Your task to perform on an android device: What's the price of the 2x4x8 boards at Home Depot? Image 0: 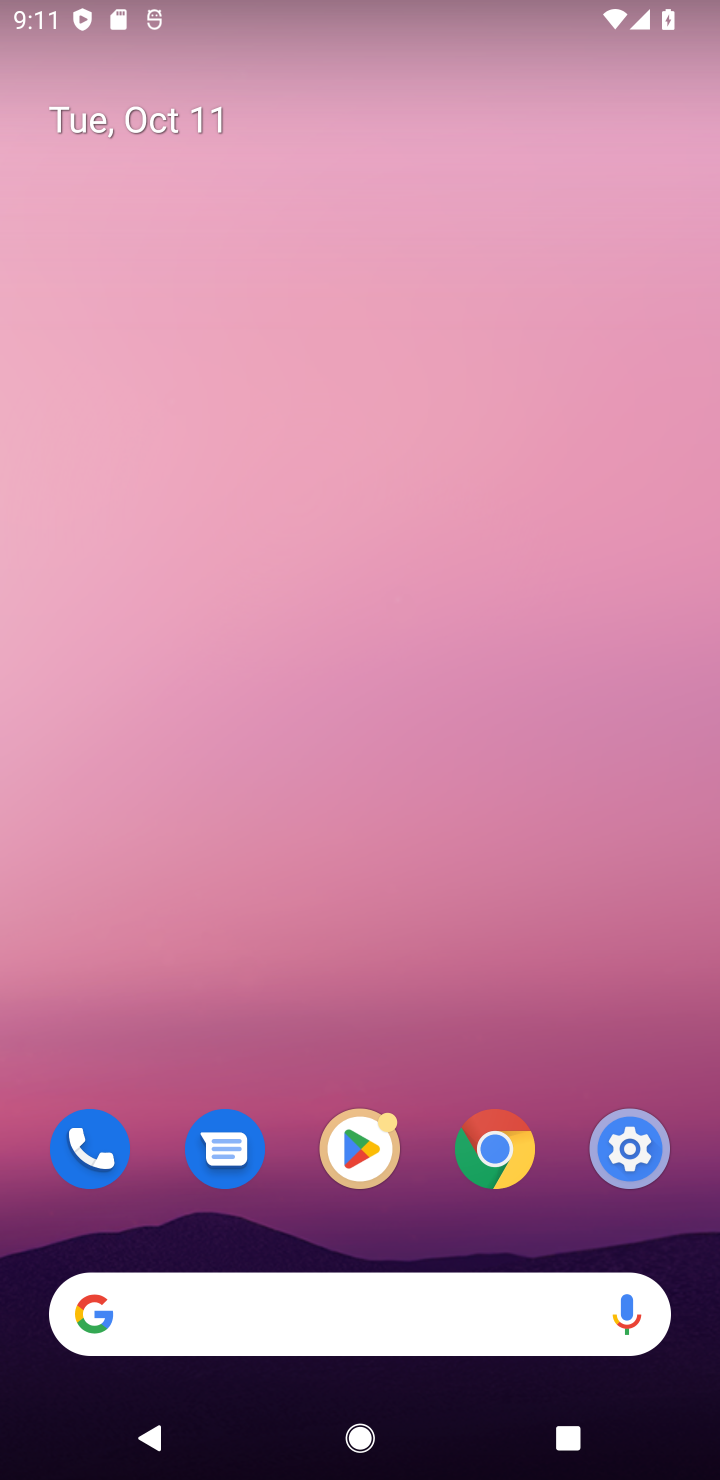
Step 0: drag from (379, 987) to (353, 218)
Your task to perform on an android device: What's the price of the 2x4x8 boards at Home Depot? Image 1: 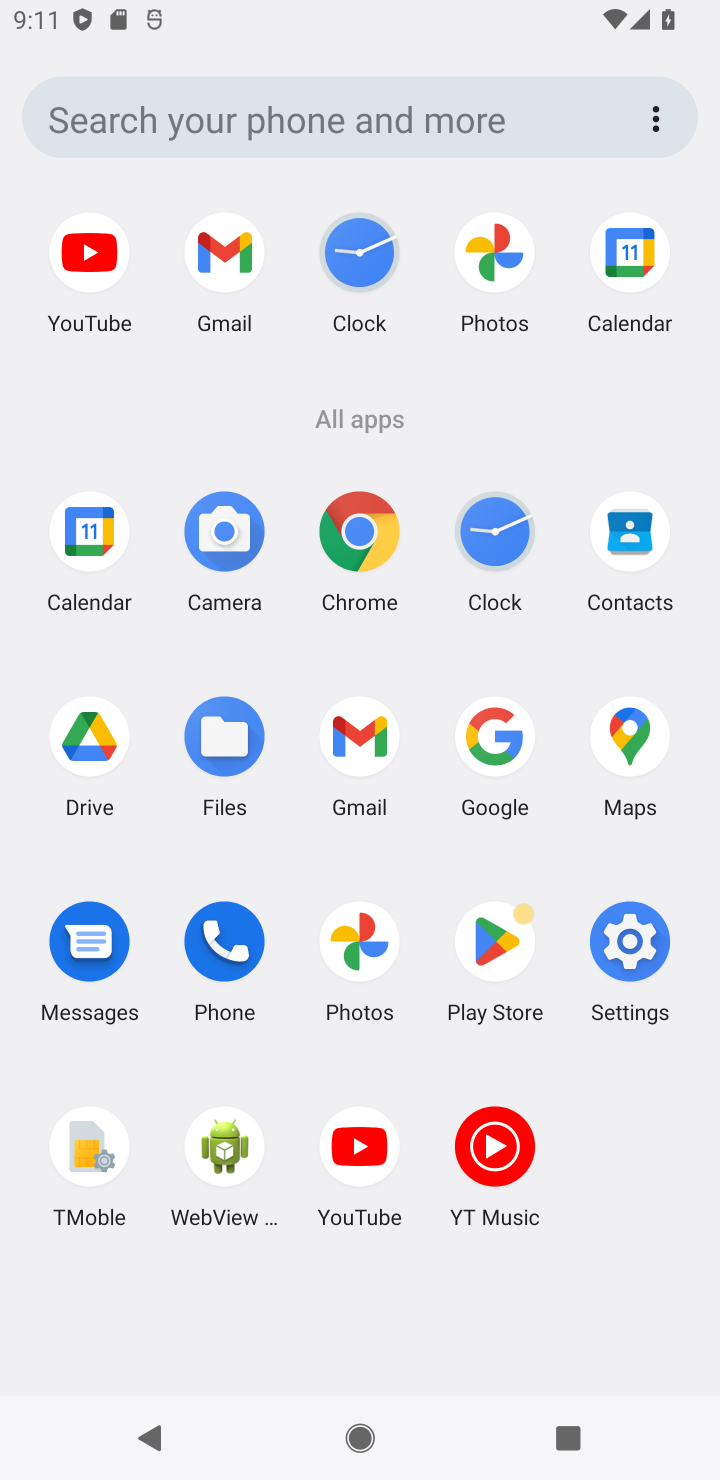
Step 1: click (513, 744)
Your task to perform on an android device: What's the price of the 2x4x8 boards at Home Depot? Image 2: 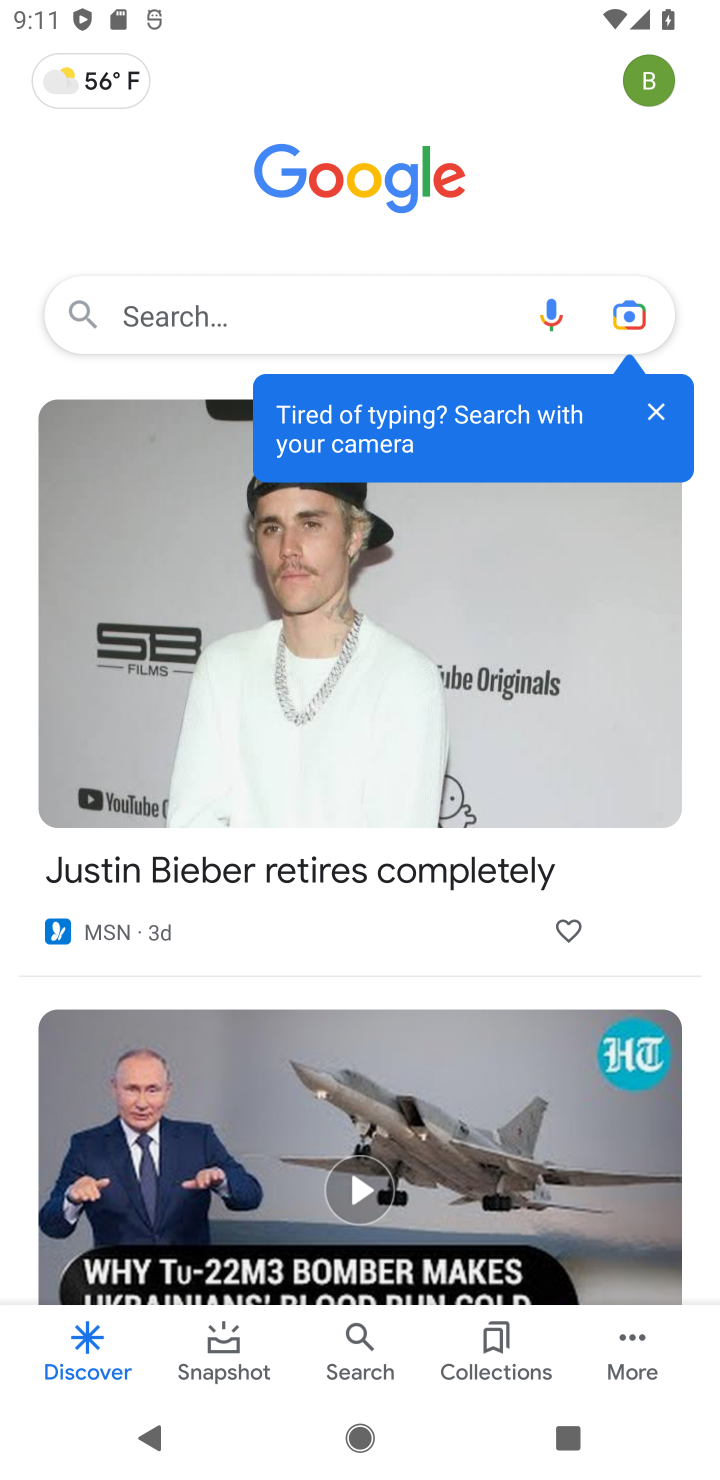
Step 2: click (387, 270)
Your task to perform on an android device: What's the price of the 2x4x8 boards at Home Depot? Image 3: 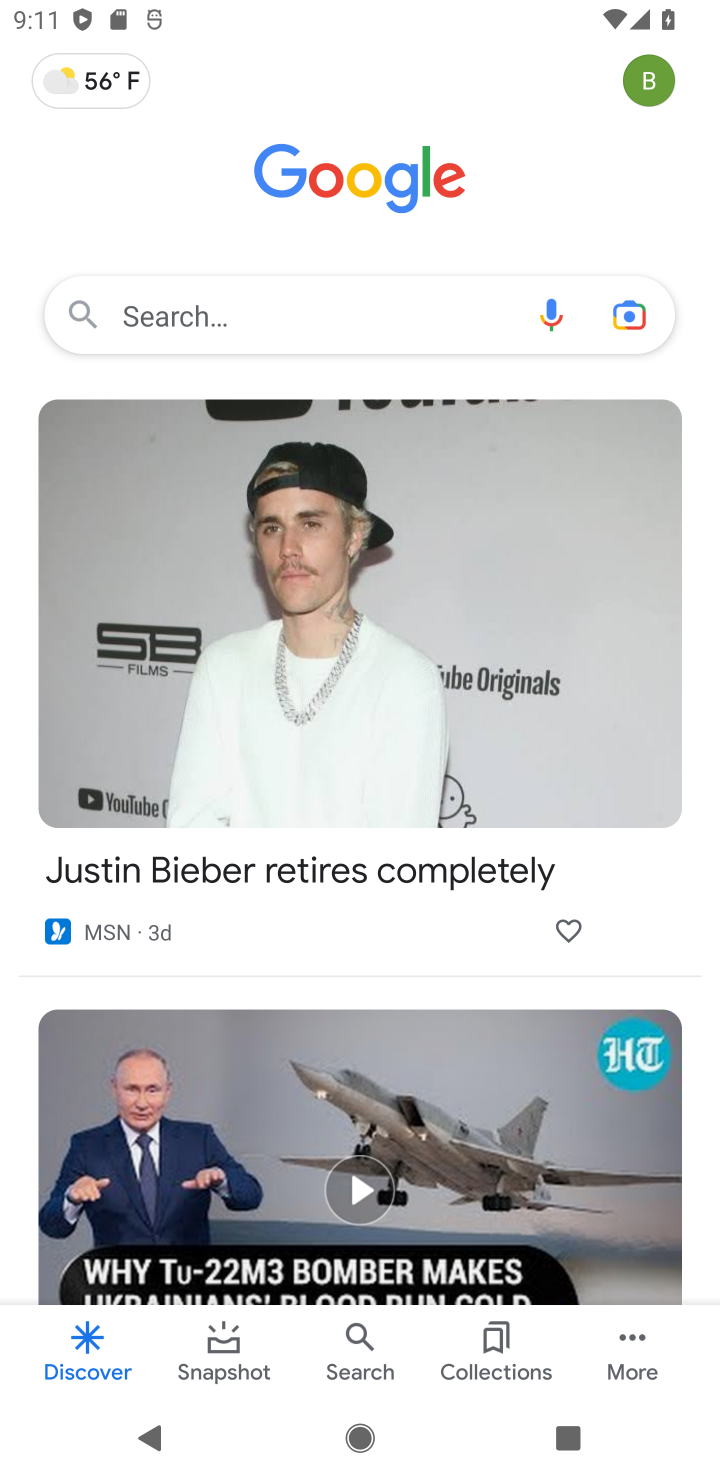
Step 3: click (342, 288)
Your task to perform on an android device: What's the price of the 2x4x8 boards at Home Depot? Image 4: 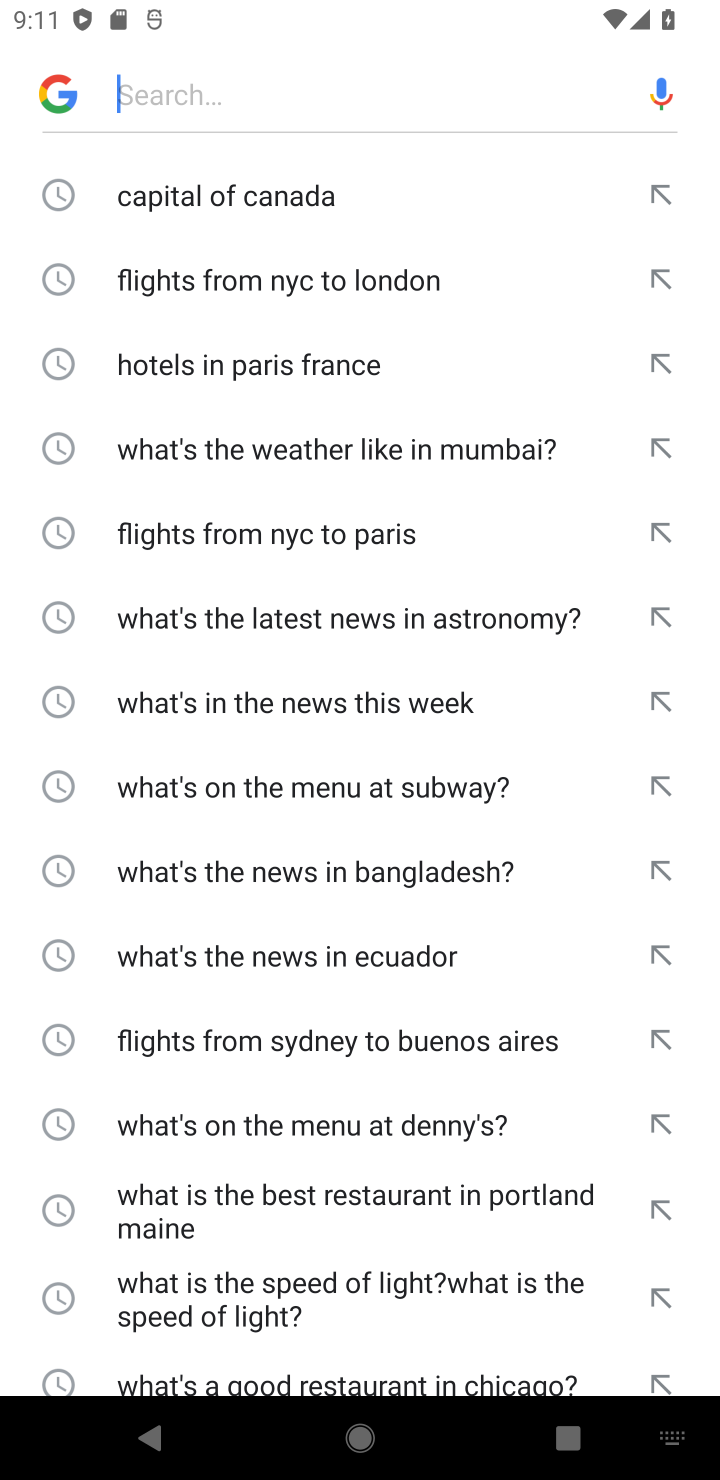
Step 4: type "What's the price of the 2x4x8 boards at Home Depot?"
Your task to perform on an android device: What's the price of the 2x4x8 boards at Home Depot? Image 5: 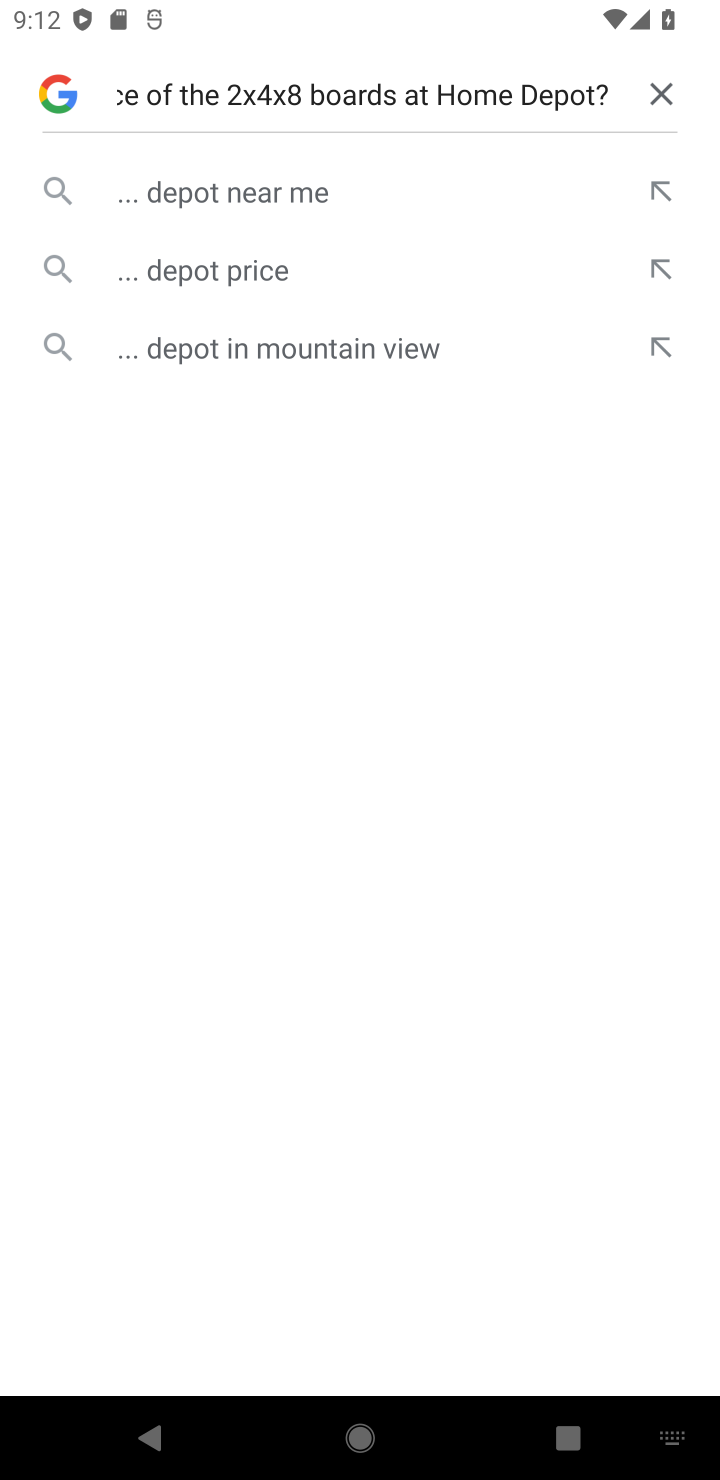
Step 5: click (319, 171)
Your task to perform on an android device: What's the price of the 2x4x8 boards at Home Depot? Image 6: 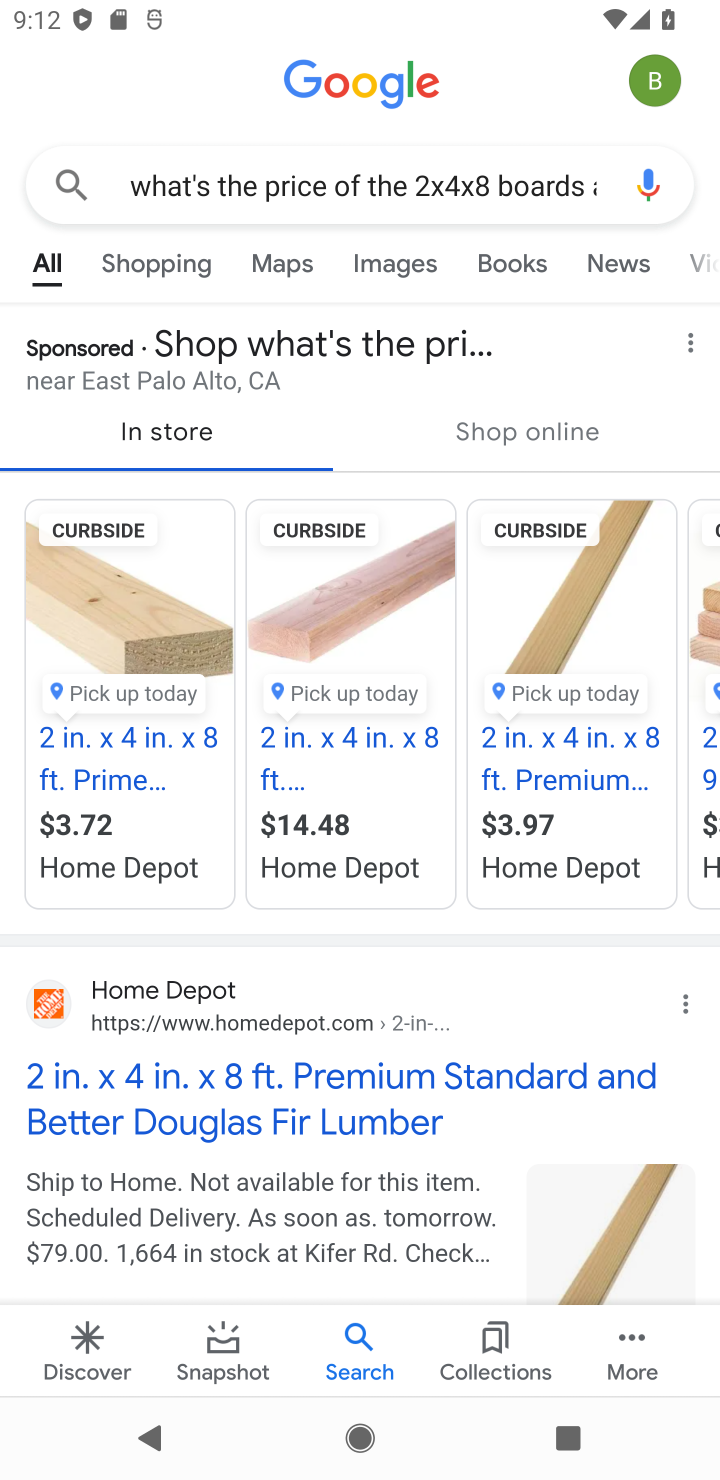
Step 6: task complete